Your task to perform on an android device: Open Youtube and go to "Your channel" Image 0: 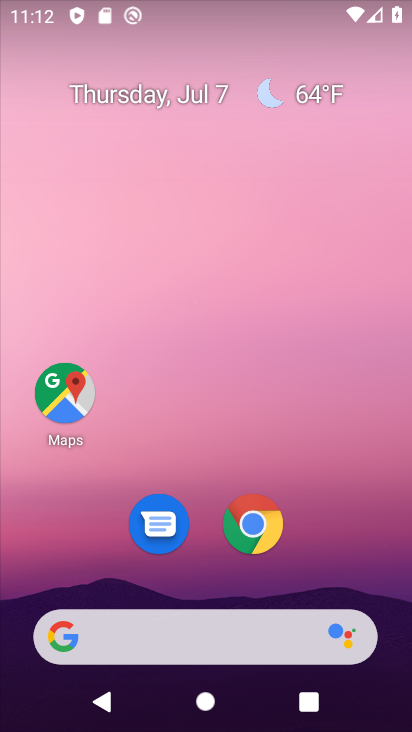
Step 0: drag from (221, 428) to (227, 70)
Your task to perform on an android device: Open Youtube and go to "Your channel" Image 1: 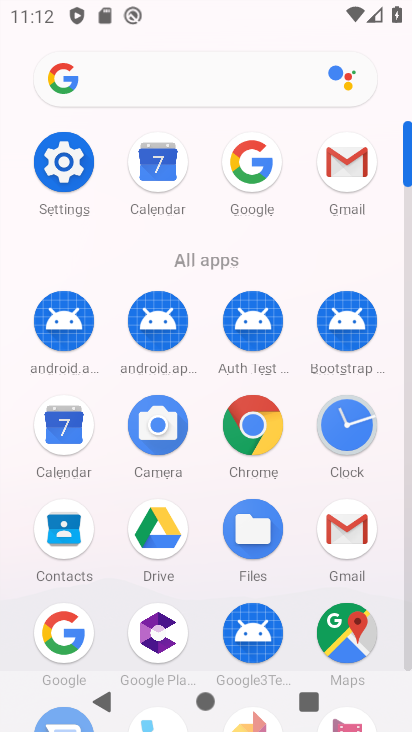
Step 1: drag from (204, 567) to (233, 137)
Your task to perform on an android device: Open Youtube and go to "Your channel" Image 2: 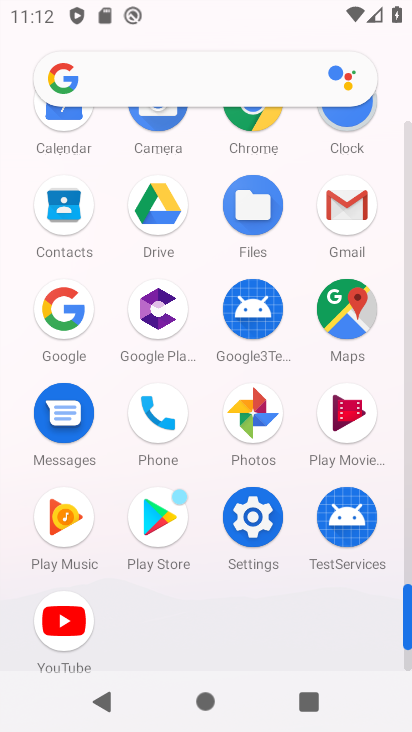
Step 2: click (76, 612)
Your task to perform on an android device: Open Youtube and go to "Your channel" Image 3: 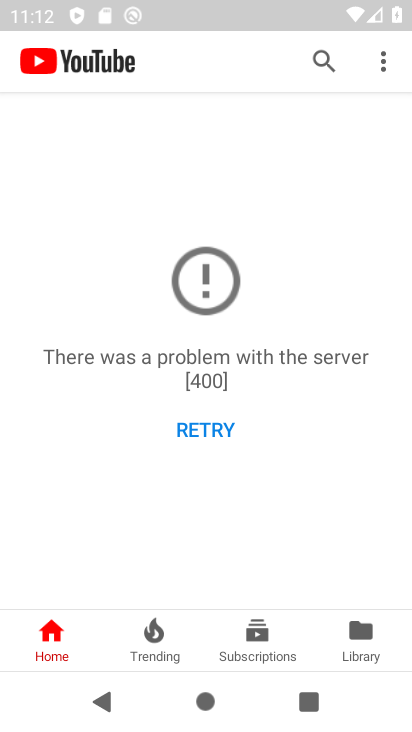
Step 3: click (382, 67)
Your task to perform on an android device: Open Youtube and go to "Your channel" Image 4: 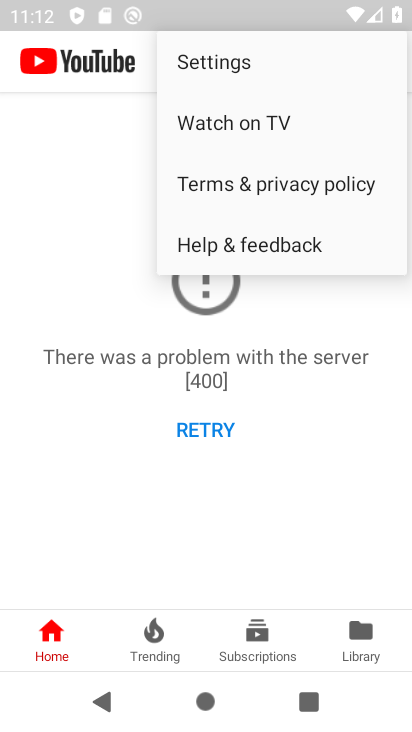
Step 4: click (258, 513)
Your task to perform on an android device: Open Youtube and go to "Your channel" Image 5: 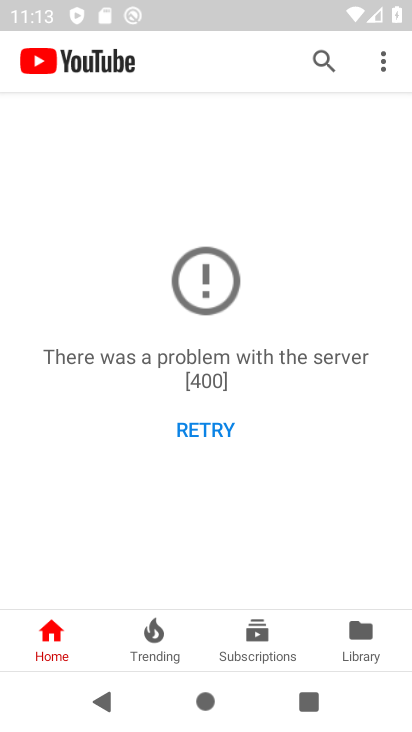
Step 5: click (258, 630)
Your task to perform on an android device: Open Youtube and go to "Your channel" Image 6: 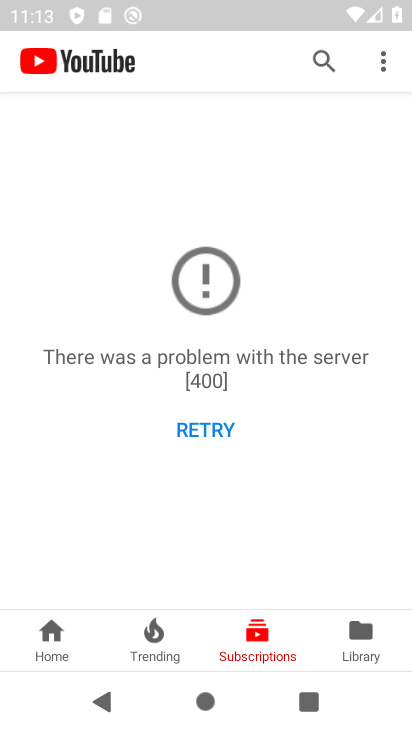
Step 6: click (384, 72)
Your task to perform on an android device: Open Youtube and go to "Your channel" Image 7: 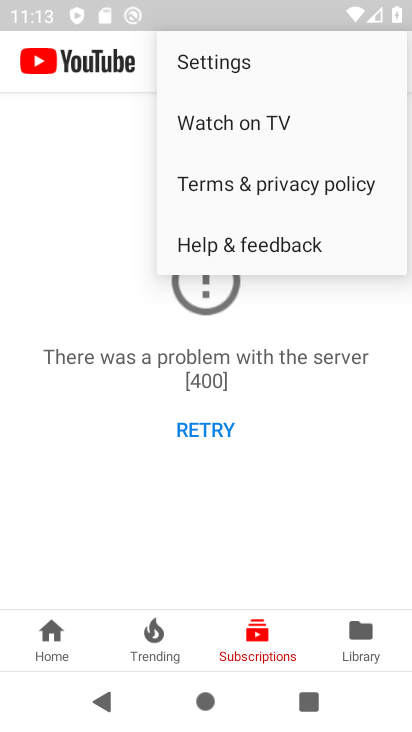
Step 7: click (297, 56)
Your task to perform on an android device: Open Youtube and go to "Your channel" Image 8: 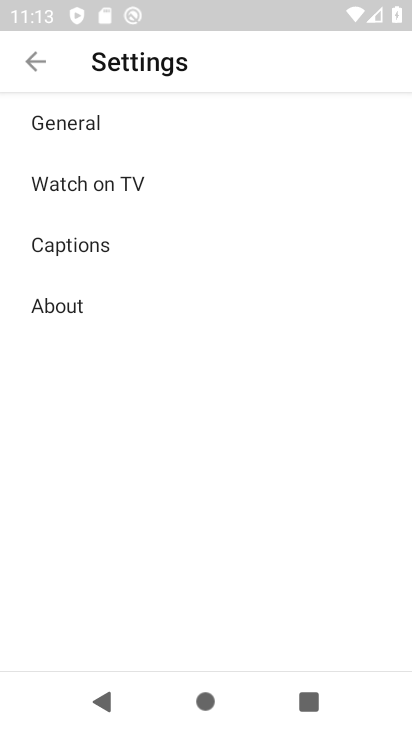
Step 8: click (91, 123)
Your task to perform on an android device: Open Youtube and go to "Your channel" Image 9: 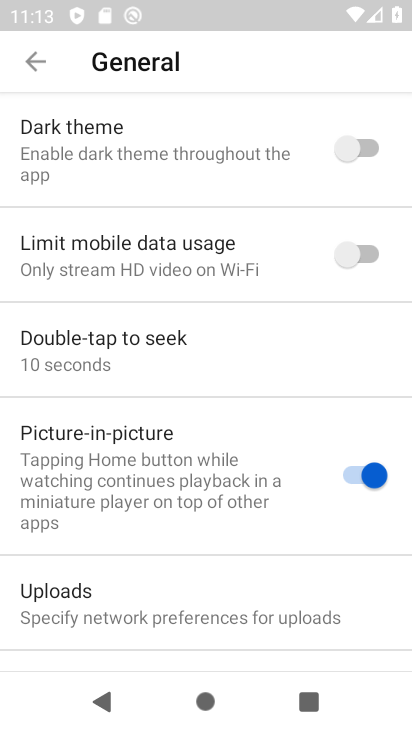
Step 9: click (41, 63)
Your task to perform on an android device: Open Youtube and go to "Your channel" Image 10: 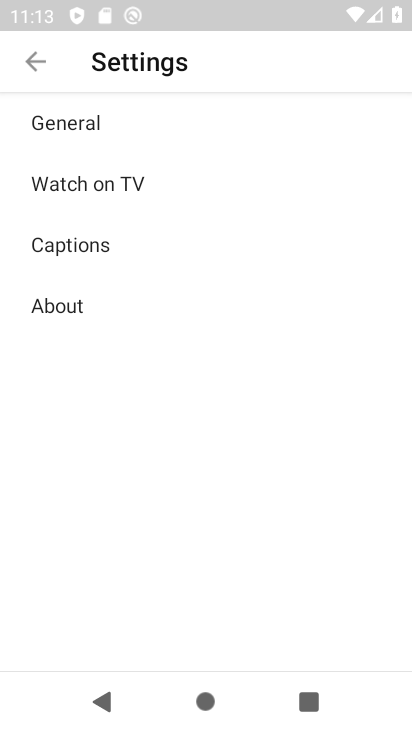
Step 10: click (65, 118)
Your task to perform on an android device: Open Youtube and go to "Your channel" Image 11: 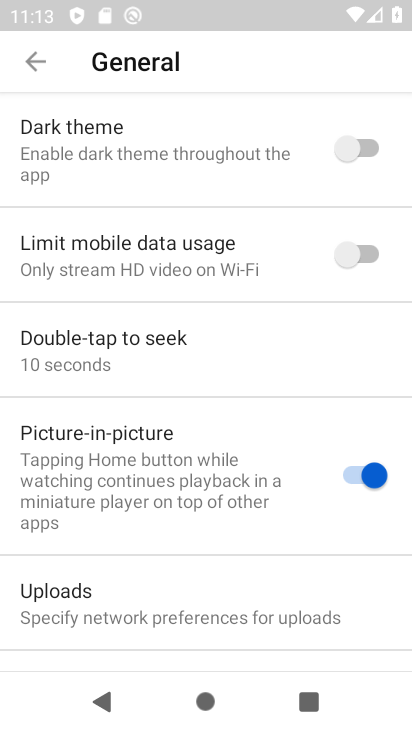
Step 11: drag from (178, 497) to (164, 154)
Your task to perform on an android device: Open Youtube and go to "Your channel" Image 12: 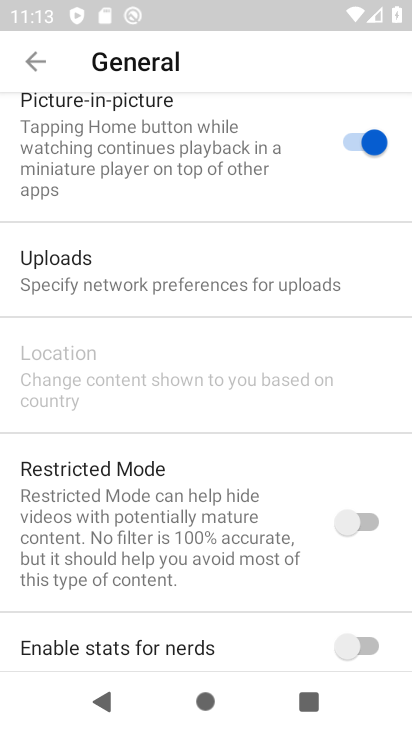
Step 12: drag from (194, 553) to (203, 315)
Your task to perform on an android device: Open Youtube and go to "Your channel" Image 13: 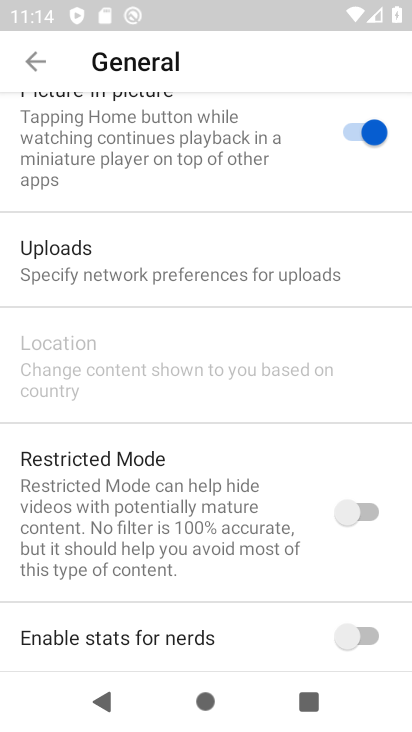
Step 13: click (41, 59)
Your task to perform on an android device: Open Youtube and go to "Your channel" Image 14: 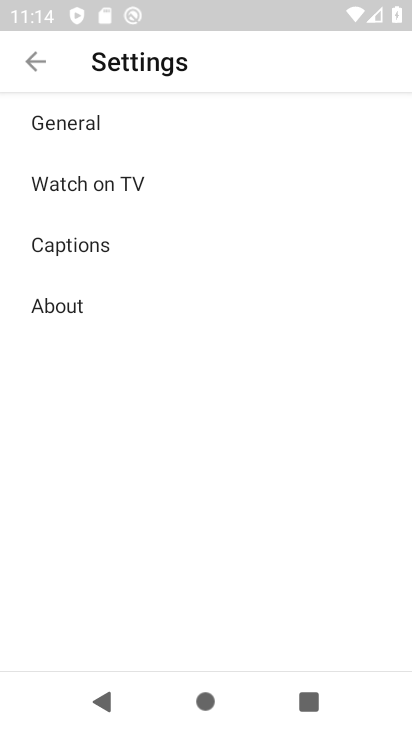
Step 14: task complete